Your task to perform on an android device: uninstall "Google Play Music" Image 0: 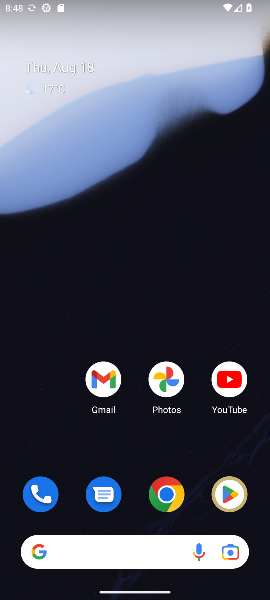
Step 0: click (232, 496)
Your task to perform on an android device: uninstall "Google Play Music" Image 1: 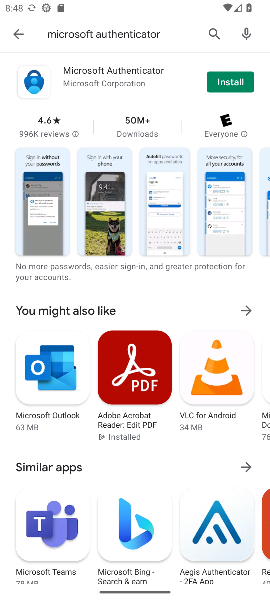
Step 1: click (214, 30)
Your task to perform on an android device: uninstall "Google Play Music" Image 2: 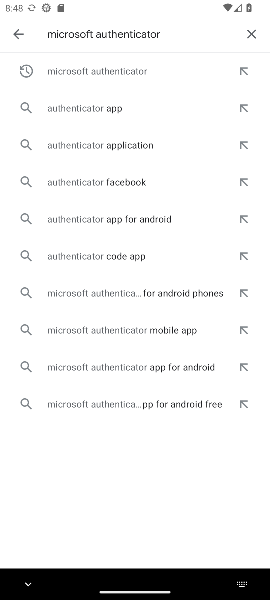
Step 2: click (249, 35)
Your task to perform on an android device: uninstall "Google Play Music" Image 3: 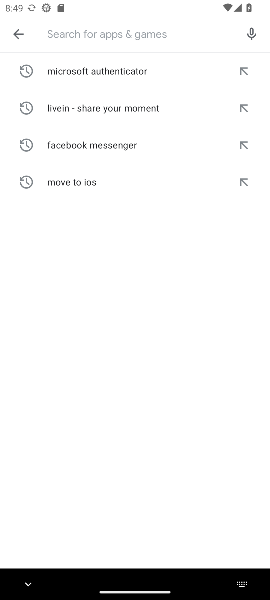
Step 3: type "Google Play Music"
Your task to perform on an android device: uninstall "Google Play Music" Image 4: 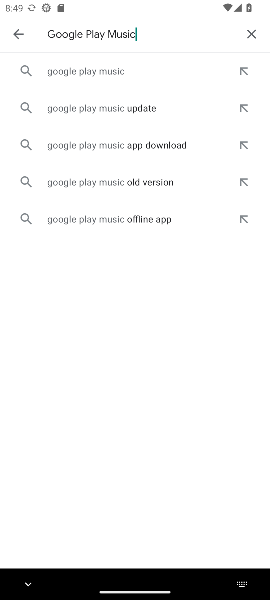
Step 4: click (66, 68)
Your task to perform on an android device: uninstall "Google Play Music" Image 5: 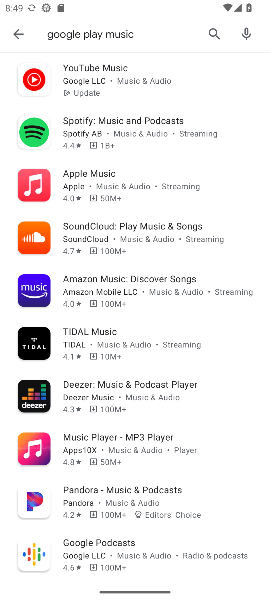
Step 5: task complete